Your task to perform on an android device: Go to wifi settings Image 0: 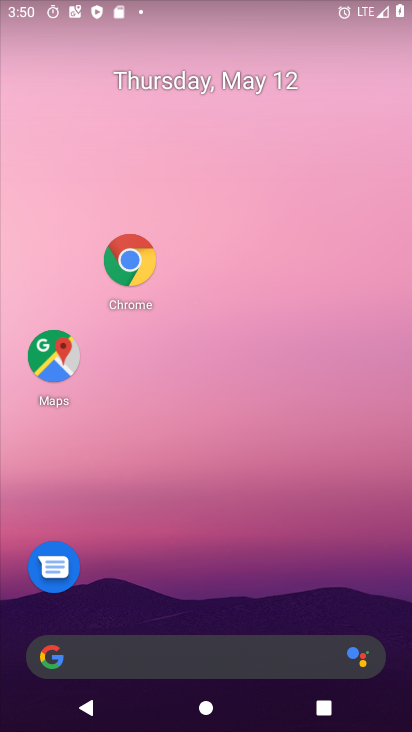
Step 0: press home button
Your task to perform on an android device: Go to wifi settings Image 1: 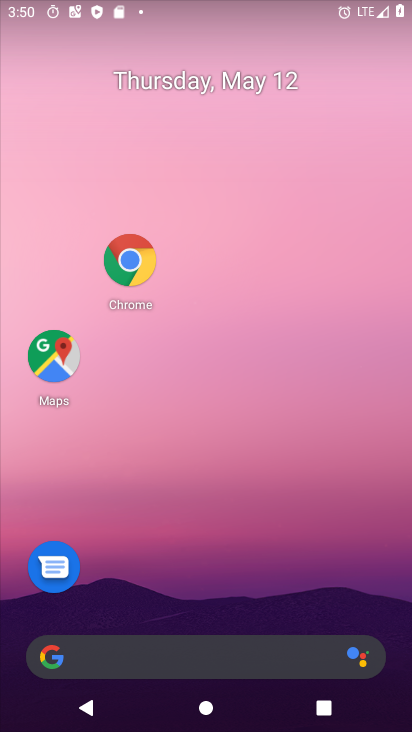
Step 1: drag from (182, 623) to (229, 213)
Your task to perform on an android device: Go to wifi settings Image 2: 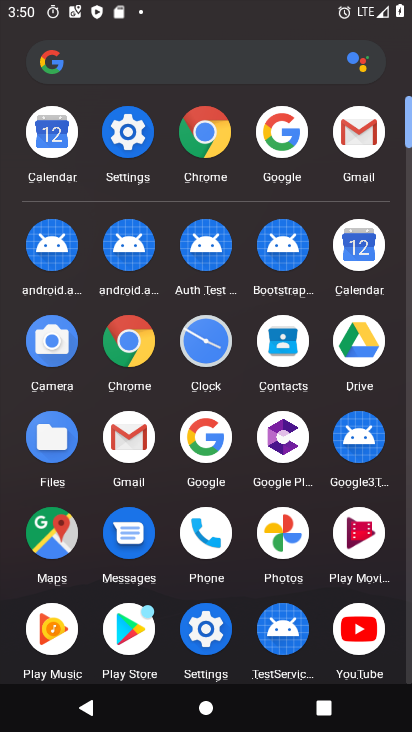
Step 2: click (140, 132)
Your task to perform on an android device: Go to wifi settings Image 3: 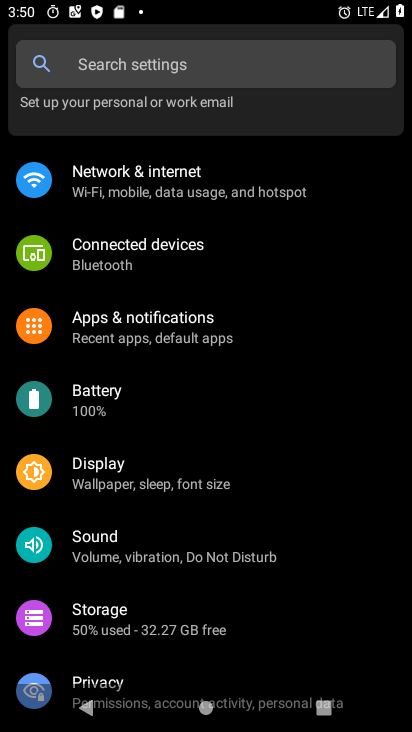
Step 3: click (155, 178)
Your task to perform on an android device: Go to wifi settings Image 4: 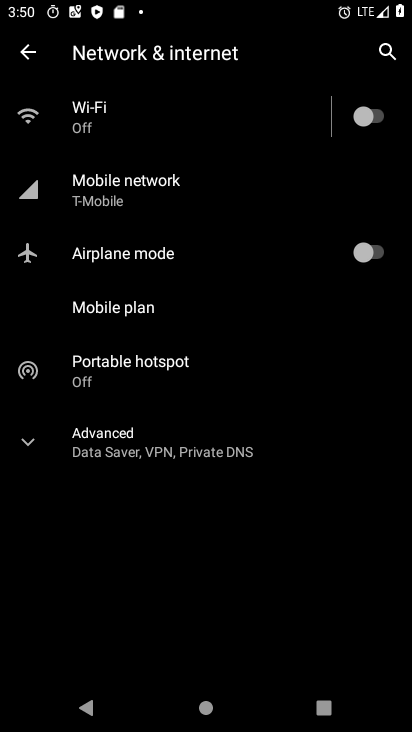
Step 4: click (96, 101)
Your task to perform on an android device: Go to wifi settings Image 5: 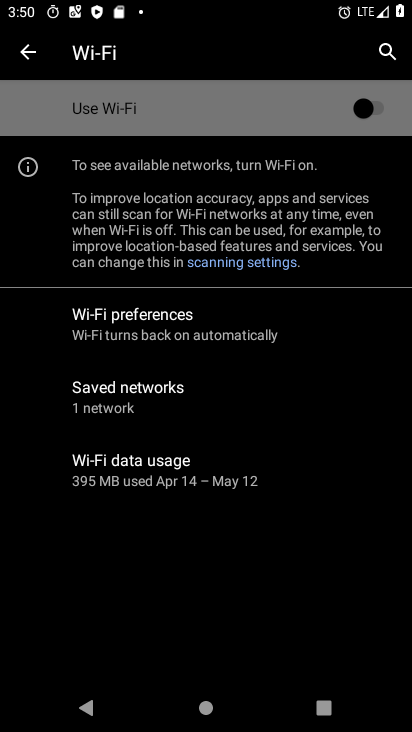
Step 5: click (372, 104)
Your task to perform on an android device: Go to wifi settings Image 6: 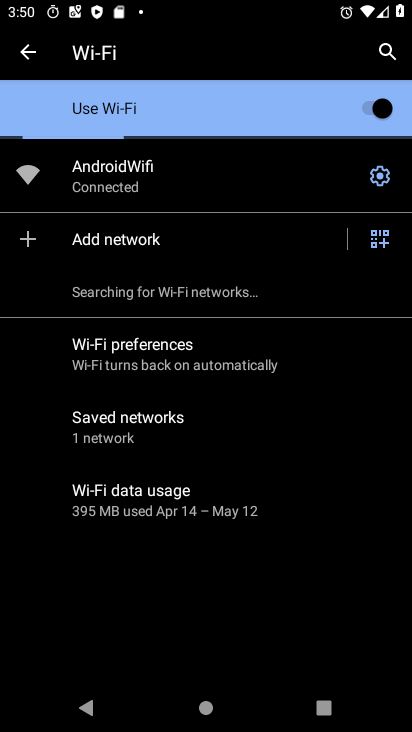
Step 6: click (380, 178)
Your task to perform on an android device: Go to wifi settings Image 7: 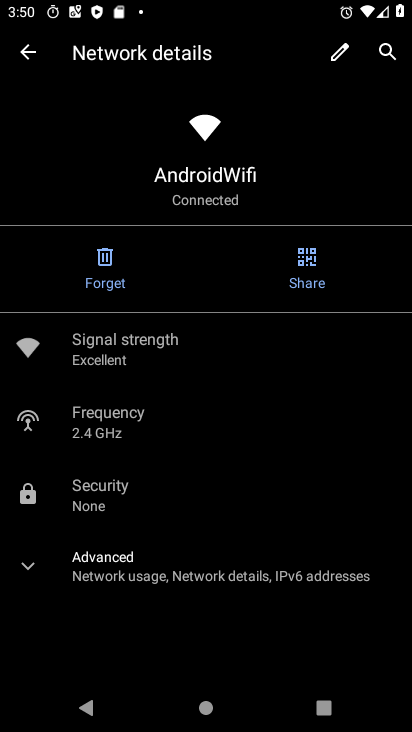
Step 7: click (134, 574)
Your task to perform on an android device: Go to wifi settings Image 8: 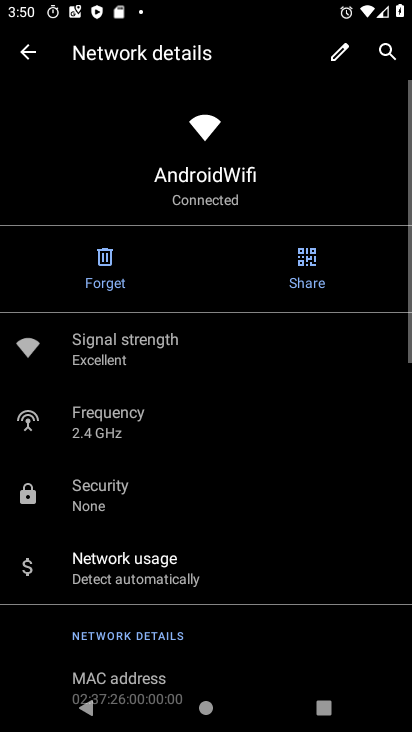
Step 8: task complete